Your task to perform on an android device: Open battery settings Image 0: 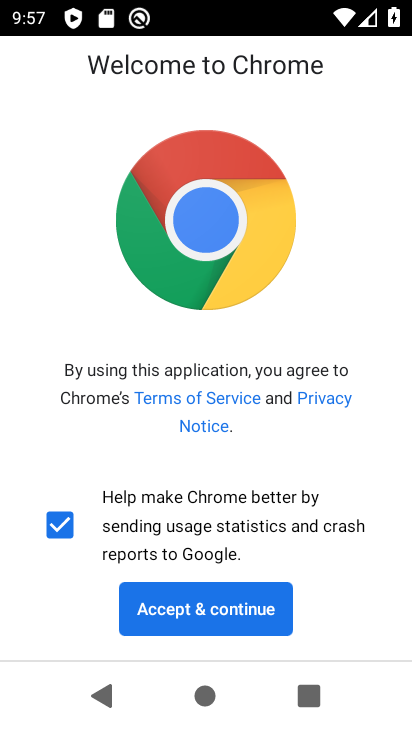
Step 0: press home button
Your task to perform on an android device: Open battery settings Image 1: 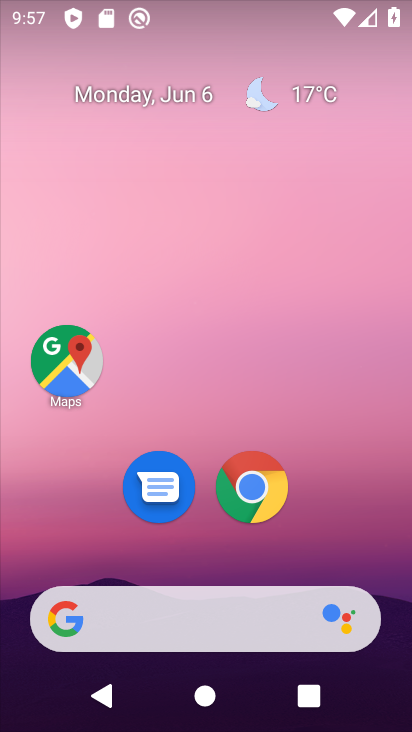
Step 1: drag from (97, 409) to (167, 118)
Your task to perform on an android device: Open battery settings Image 2: 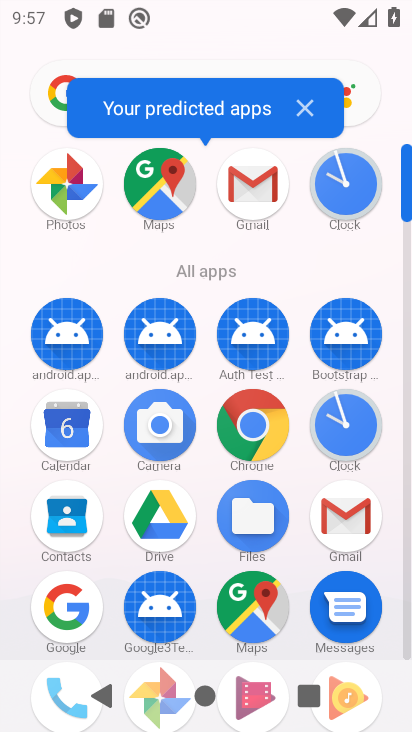
Step 2: drag from (195, 623) to (264, 268)
Your task to perform on an android device: Open battery settings Image 3: 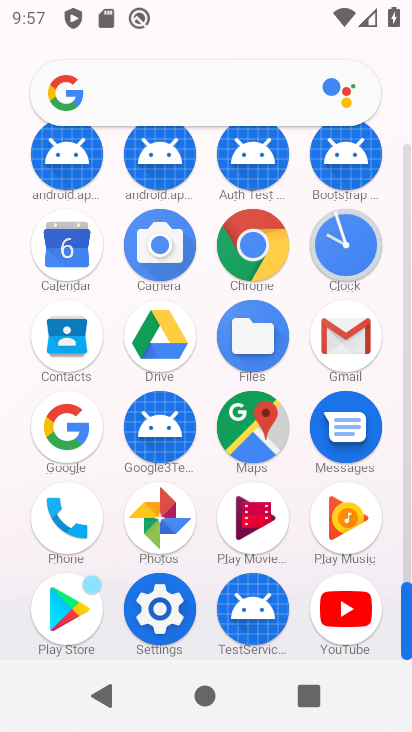
Step 3: click (169, 601)
Your task to perform on an android device: Open battery settings Image 4: 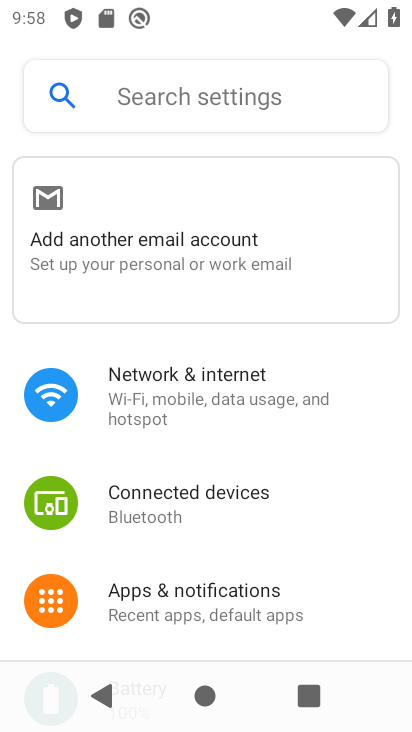
Step 4: drag from (162, 605) to (234, 317)
Your task to perform on an android device: Open battery settings Image 5: 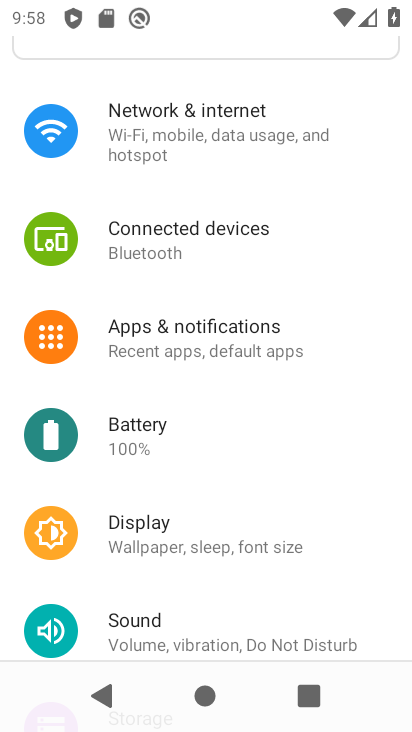
Step 5: click (177, 457)
Your task to perform on an android device: Open battery settings Image 6: 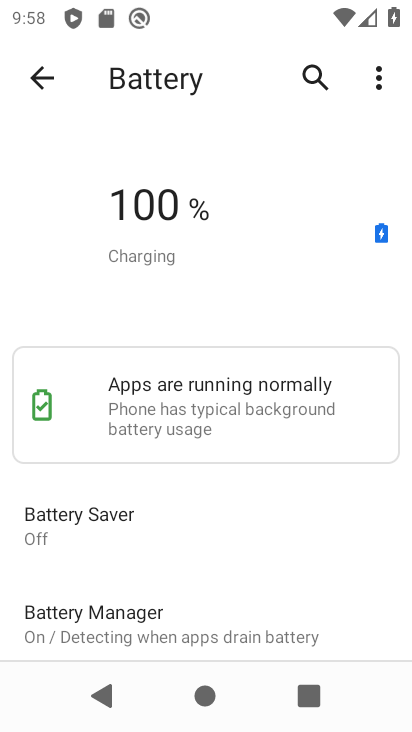
Step 6: task complete